Your task to perform on an android device: turn on airplane mode Image 0: 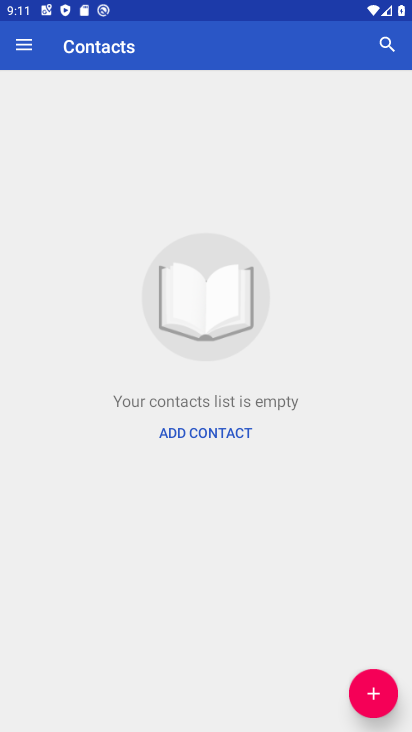
Step 0: press home button
Your task to perform on an android device: turn on airplane mode Image 1: 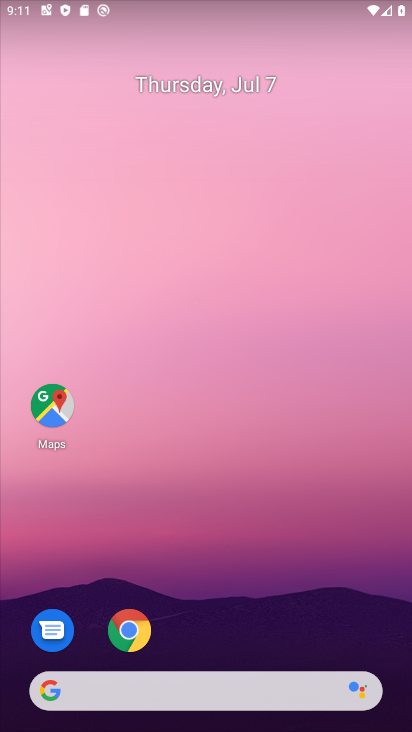
Step 1: drag from (204, 600) to (256, 138)
Your task to perform on an android device: turn on airplane mode Image 2: 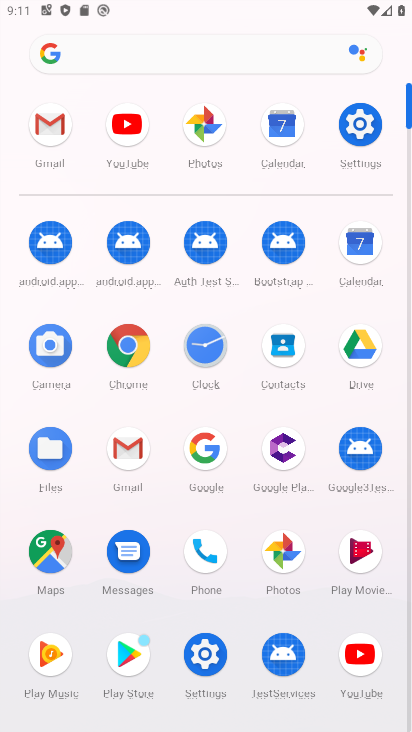
Step 2: click (350, 139)
Your task to perform on an android device: turn on airplane mode Image 3: 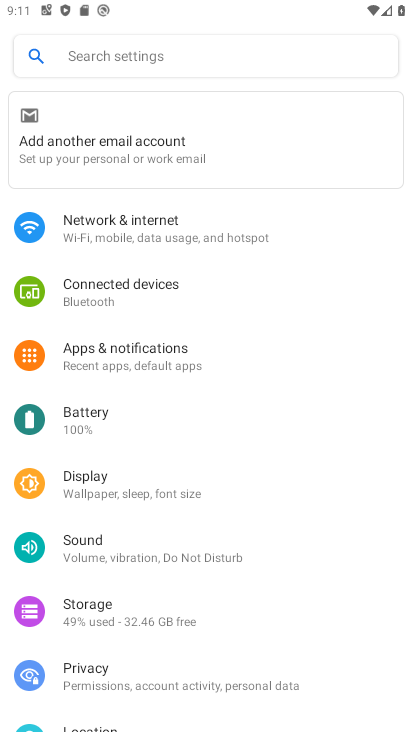
Step 3: click (134, 250)
Your task to perform on an android device: turn on airplane mode Image 4: 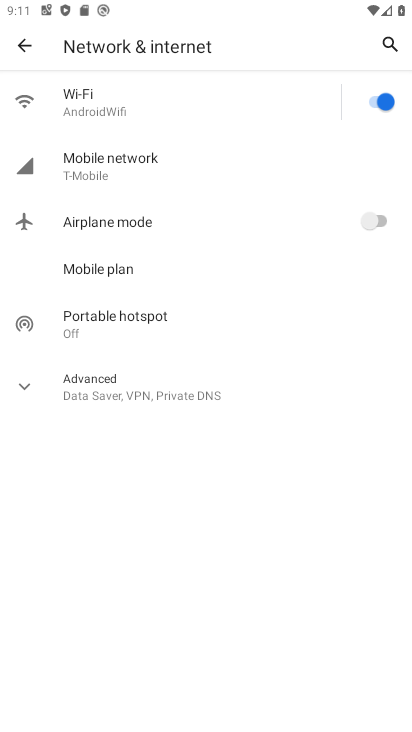
Step 4: click (384, 219)
Your task to perform on an android device: turn on airplane mode Image 5: 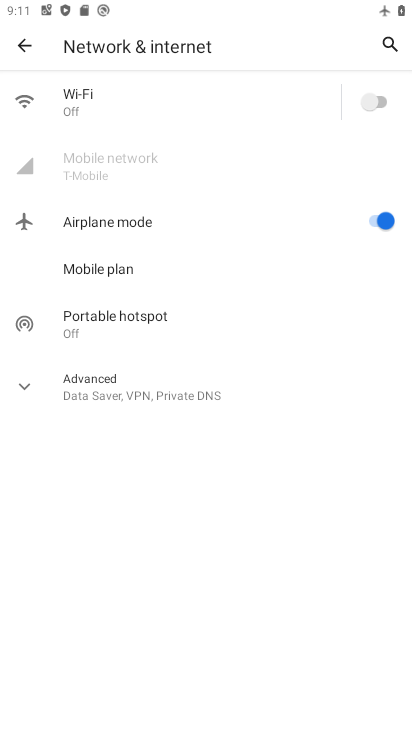
Step 5: task complete